Your task to perform on an android device: Go to Android settings Image 0: 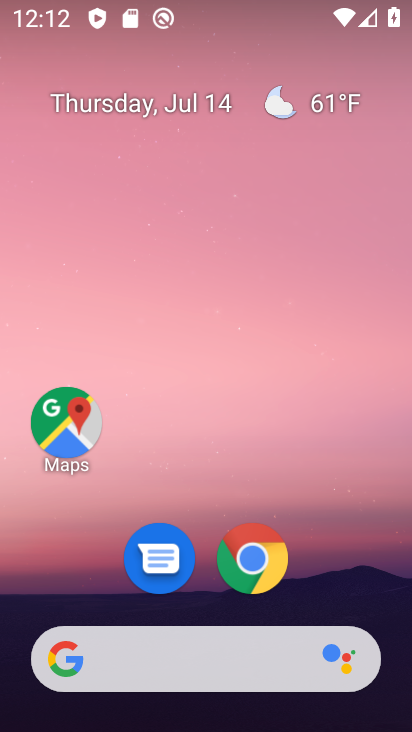
Step 0: drag from (194, 603) to (222, 46)
Your task to perform on an android device: Go to Android settings Image 1: 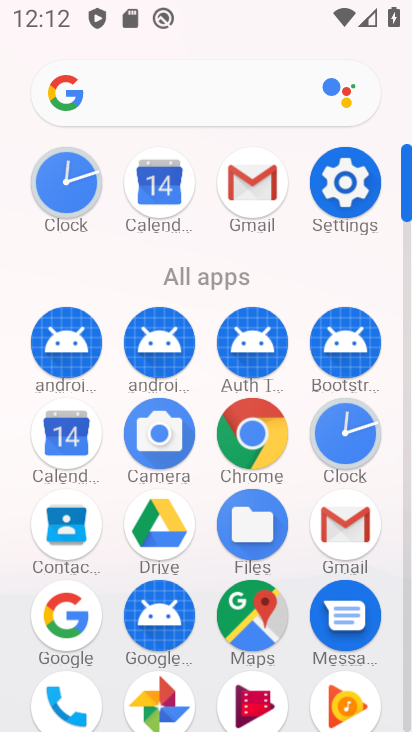
Step 1: click (349, 171)
Your task to perform on an android device: Go to Android settings Image 2: 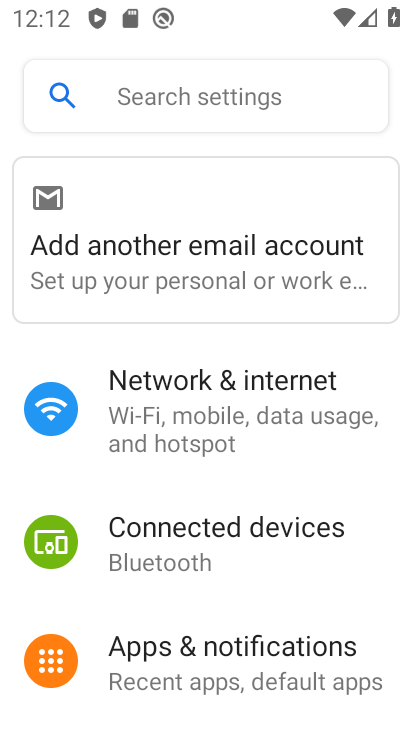
Step 2: drag from (220, 583) to (304, 84)
Your task to perform on an android device: Go to Android settings Image 3: 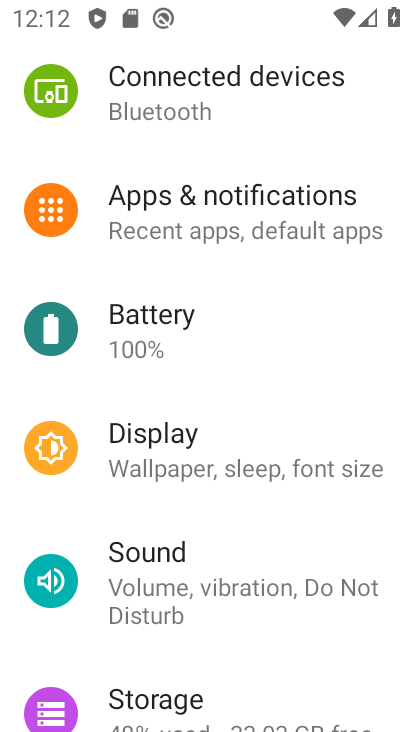
Step 3: drag from (224, 606) to (267, 105)
Your task to perform on an android device: Go to Android settings Image 4: 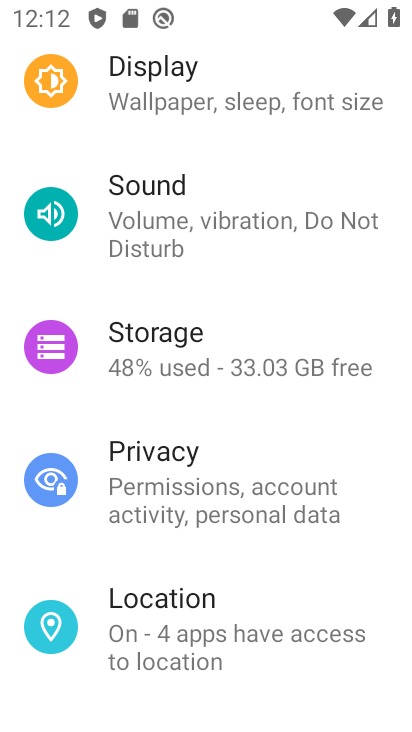
Step 4: drag from (187, 635) to (281, 82)
Your task to perform on an android device: Go to Android settings Image 5: 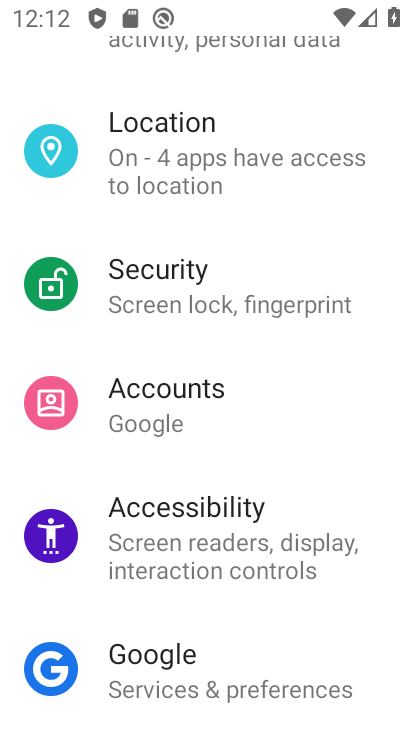
Step 5: drag from (249, 583) to (299, 28)
Your task to perform on an android device: Go to Android settings Image 6: 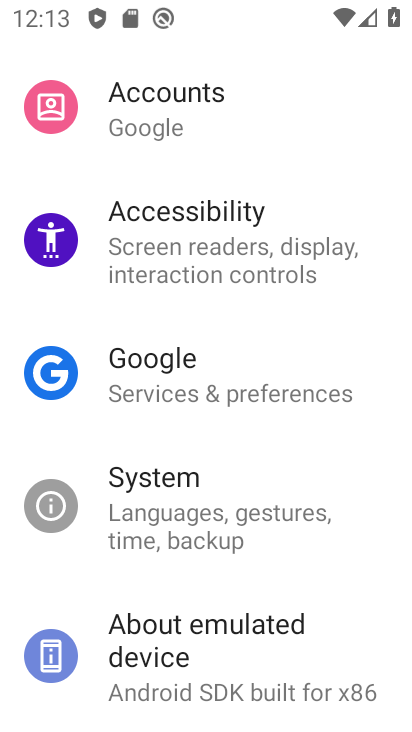
Step 6: drag from (238, 676) to (306, 101)
Your task to perform on an android device: Go to Android settings Image 7: 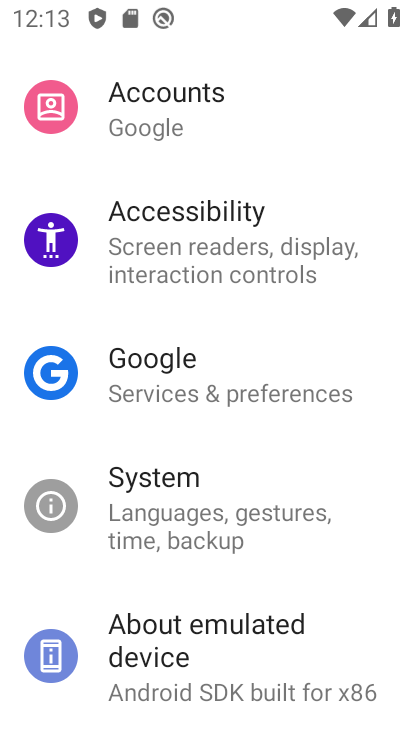
Step 7: click (201, 649)
Your task to perform on an android device: Go to Android settings Image 8: 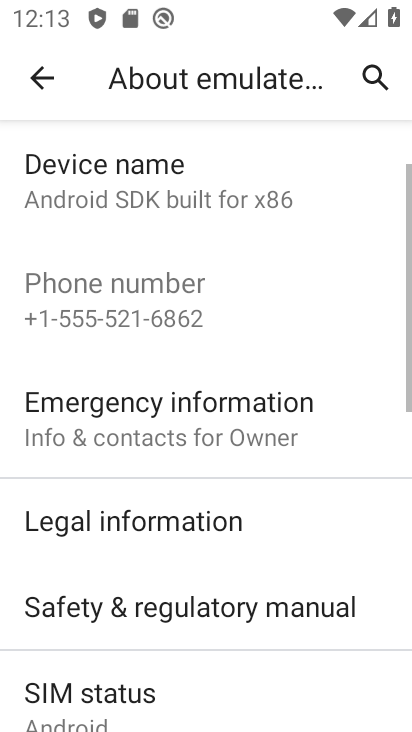
Step 8: drag from (145, 616) to (266, 74)
Your task to perform on an android device: Go to Android settings Image 9: 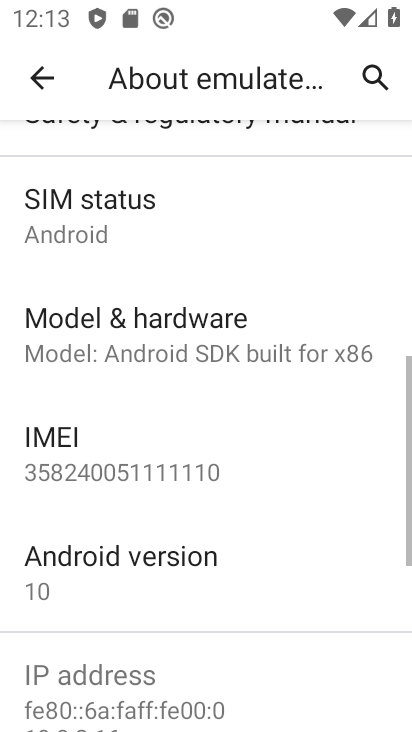
Step 9: click (148, 561)
Your task to perform on an android device: Go to Android settings Image 10: 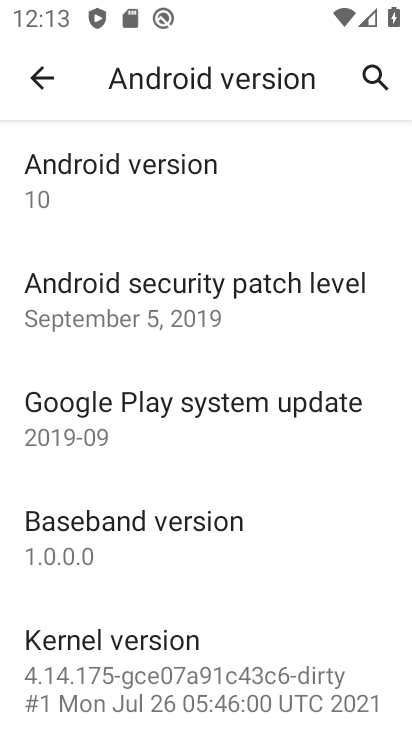
Step 10: task complete